Your task to perform on an android device: Go to Reddit.com Image 0: 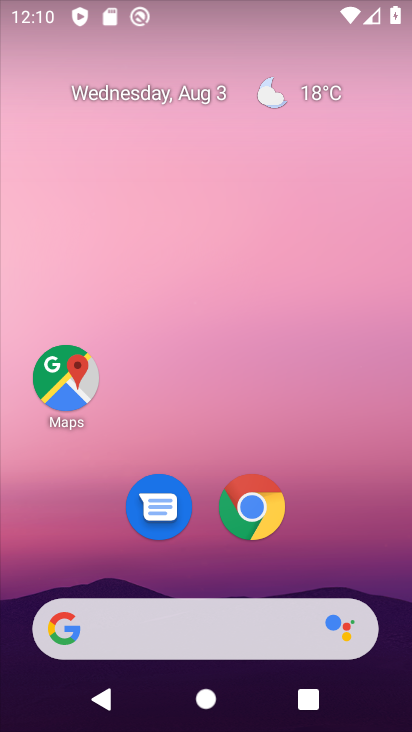
Step 0: drag from (307, 628) to (274, 47)
Your task to perform on an android device: Go to Reddit.com Image 1: 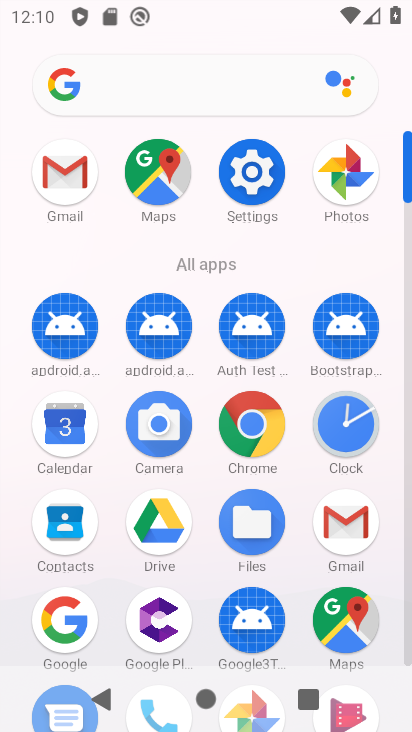
Step 1: click (229, 423)
Your task to perform on an android device: Go to Reddit.com Image 2: 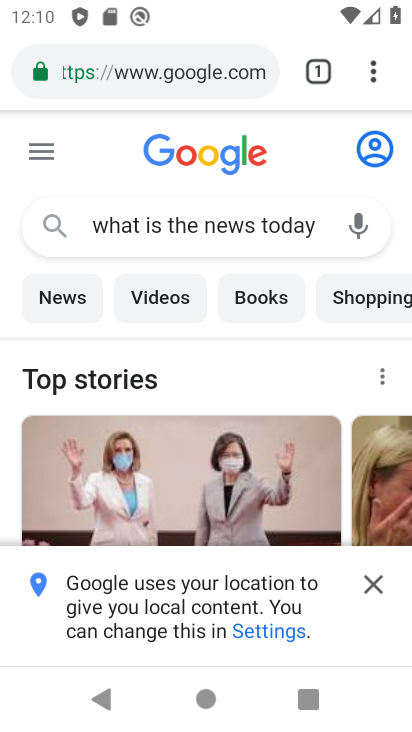
Step 2: click (239, 61)
Your task to perform on an android device: Go to Reddit.com Image 3: 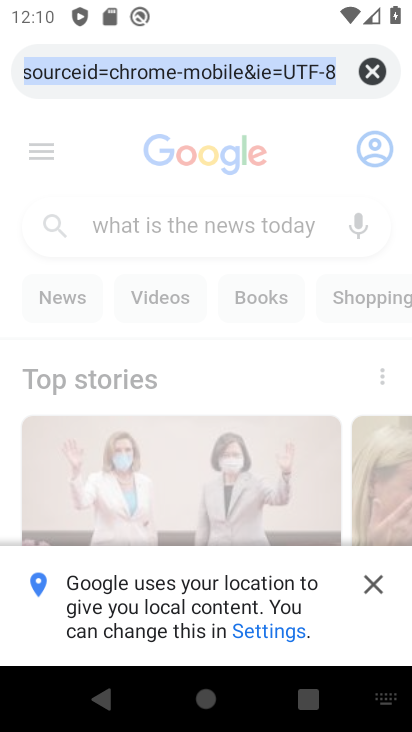
Step 3: type "reddit.com"
Your task to perform on an android device: Go to Reddit.com Image 4: 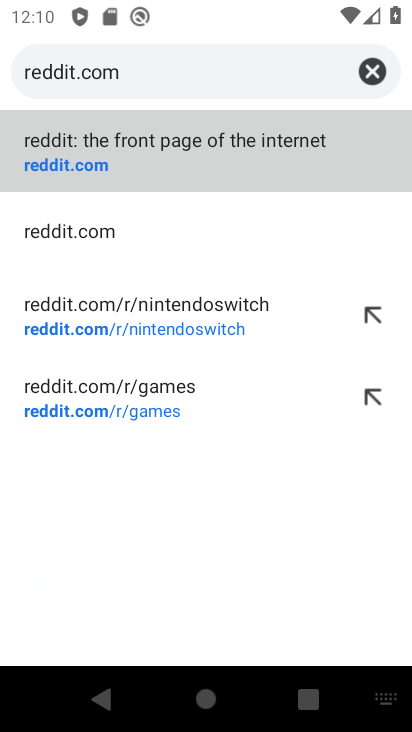
Step 4: click (174, 152)
Your task to perform on an android device: Go to Reddit.com Image 5: 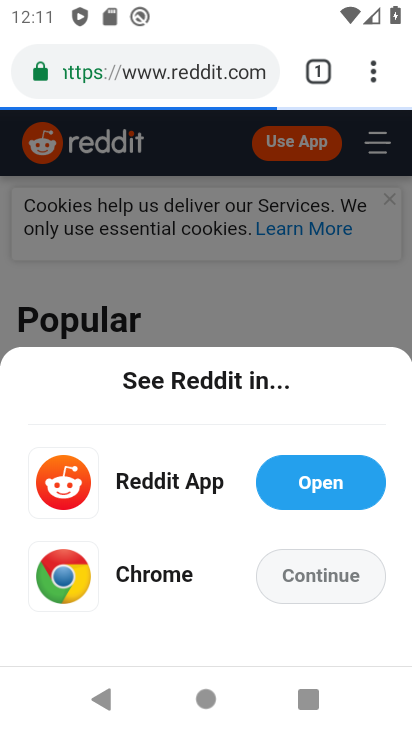
Step 5: task complete